Your task to perform on an android device: see tabs open on other devices in the chrome app Image 0: 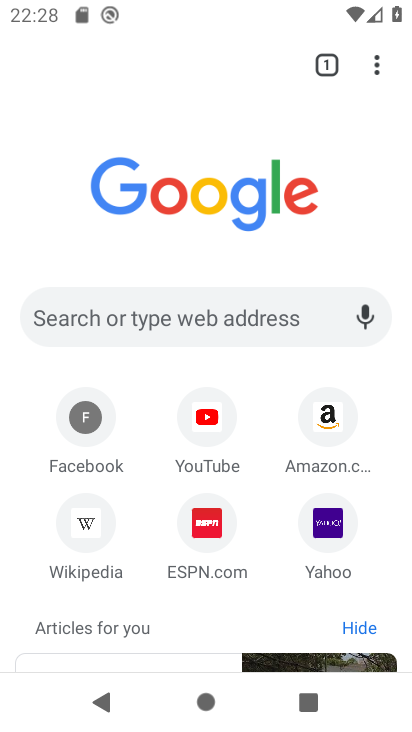
Step 0: press home button
Your task to perform on an android device: see tabs open on other devices in the chrome app Image 1: 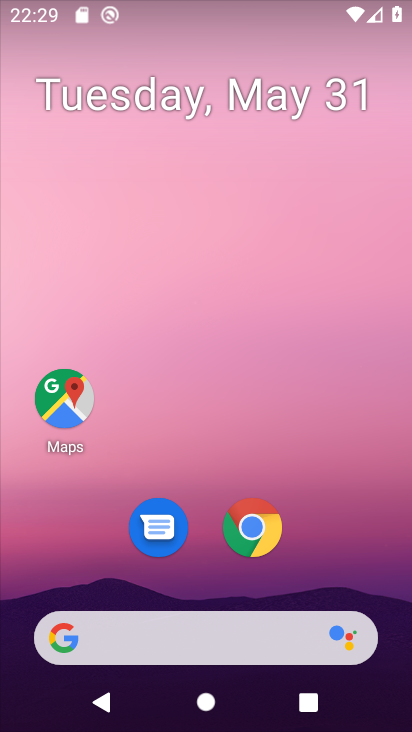
Step 1: click (248, 528)
Your task to perform on an android device: see tabs open on other devices in the chrome app Image 2: 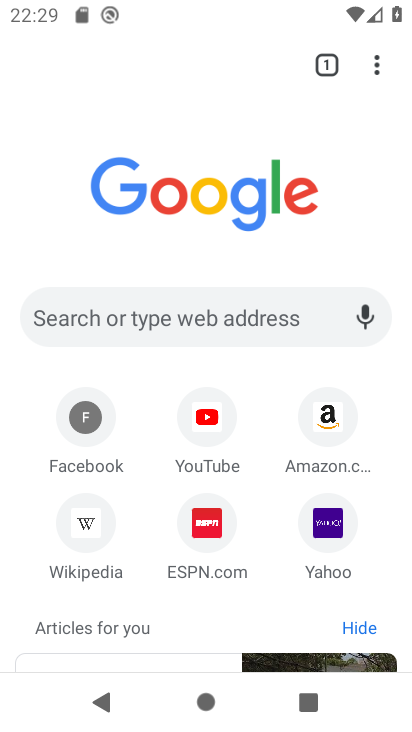
Step 2: click (372, 61)
Your task to perform on an android device: see tabs open on other devices in the chrome app Image 3: 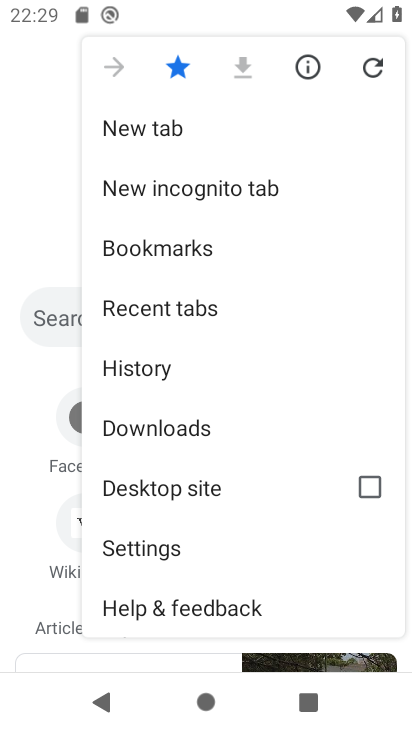
Step 3: click (212, 310)
Your task to perform on an android device: see tabs open on other devices in the chrome app Image 4: 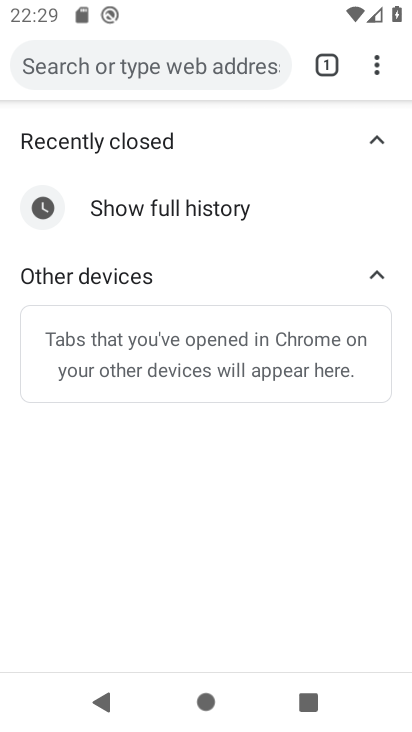
Step 4: task complete